Your task to perform on an android device: change alarm snooze length Image 0: 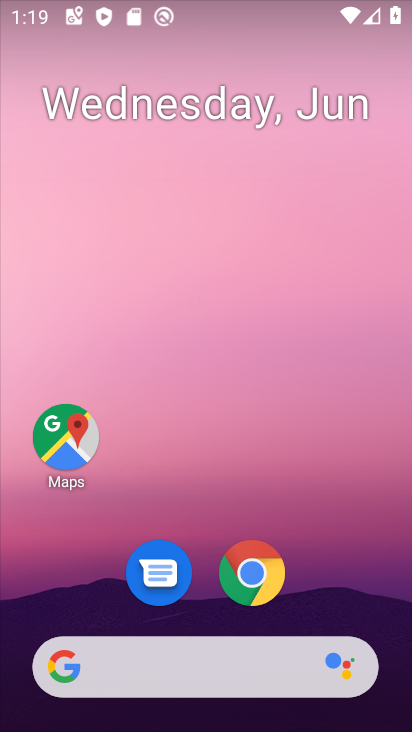
Step 0: drag from (318, 514) to (266, 110)
Your task to perform on an android device: change alarm snooze length Image 1: 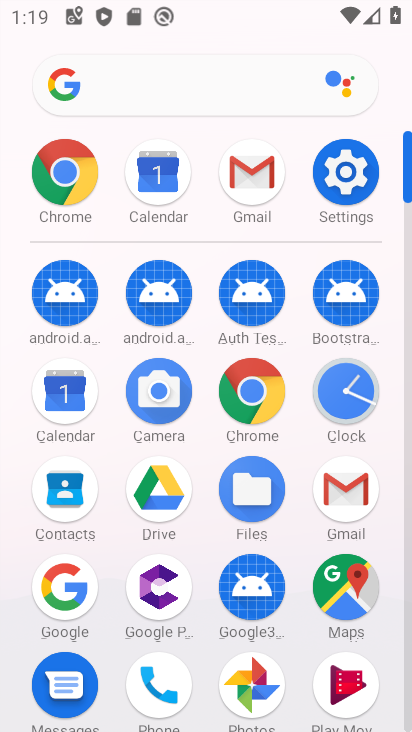
Step 1: click (330, 383)
Your task to perform on an android device: change alarm snooze length Image 2: 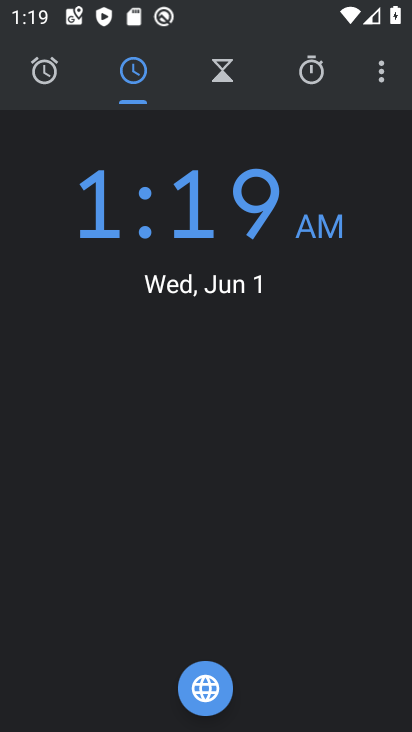
Step 2: drag from (378, 88) to (289, 135)
Your task to perform on an android device: change alarm snooze length Image 3: 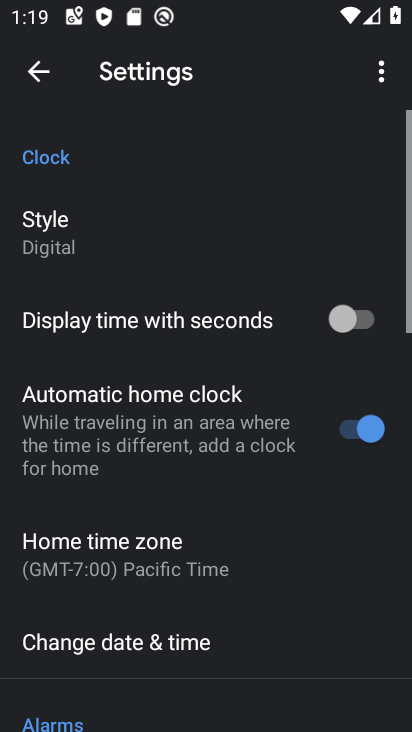
Step 3: drag from (201, 592) to (232, 316)
Your task to perform on an android device: change alarm snooze length Image 4: 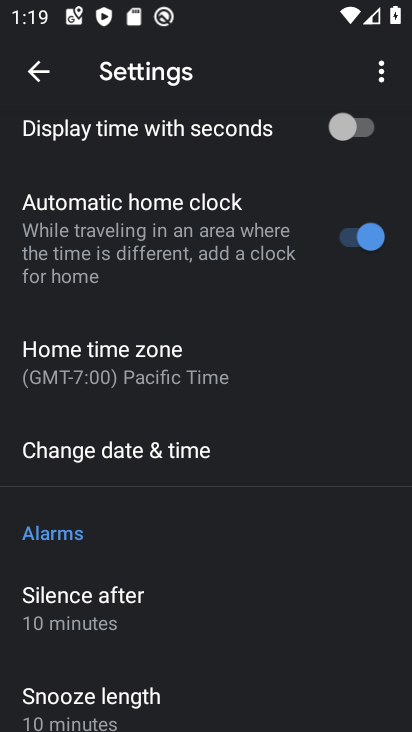
Step 4: click (187, 689)
Your task to perform on an android device: change alarm snooze length Image 5: 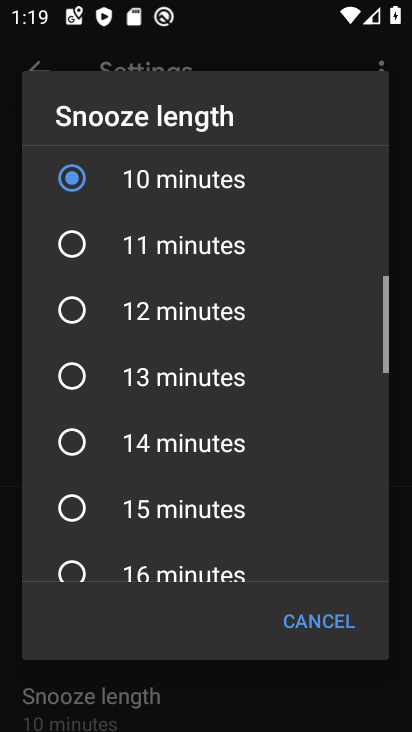
Step 5: click (184, 433)
Your task to perform on an android device: change alarm snooze length Image 6: 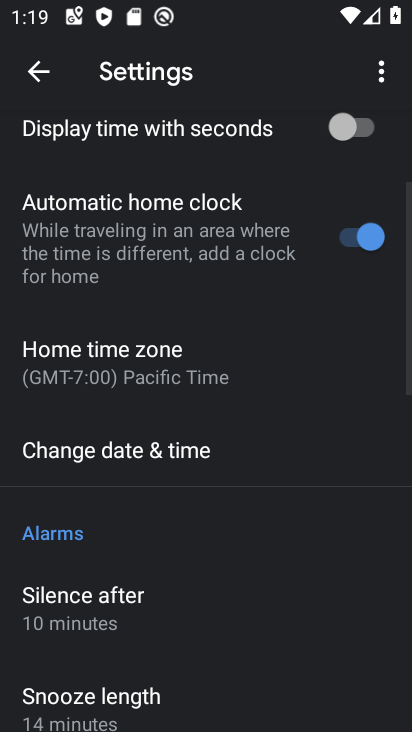
Step 6: task complete